Your task to perform on an android device: check android version Image 0: 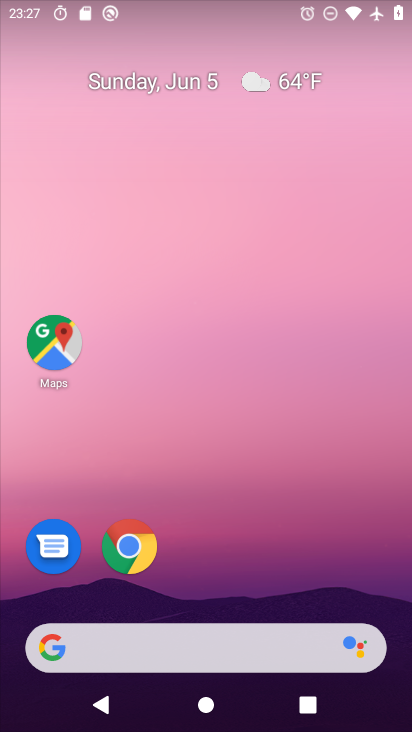
Step 0: drag from (191, 509) to (208, 134)
Your task to perform on an android device: check android version Image 1: 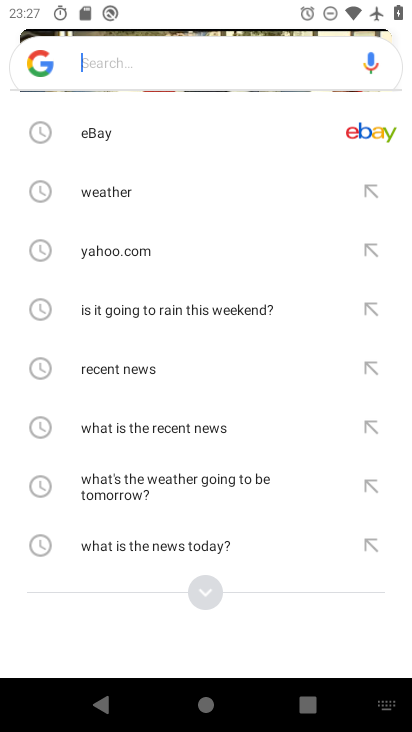
Step 1: press home button
Your task to perform on an android device: check android version Image 2: 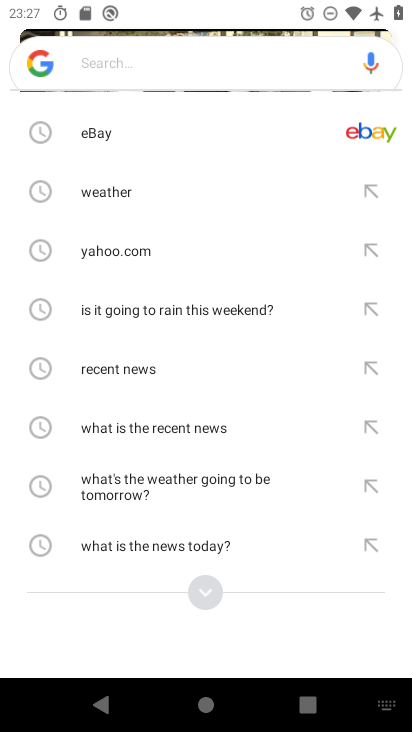
Step 2: press home button
Your task to perform on an android device: check android version Image 3: 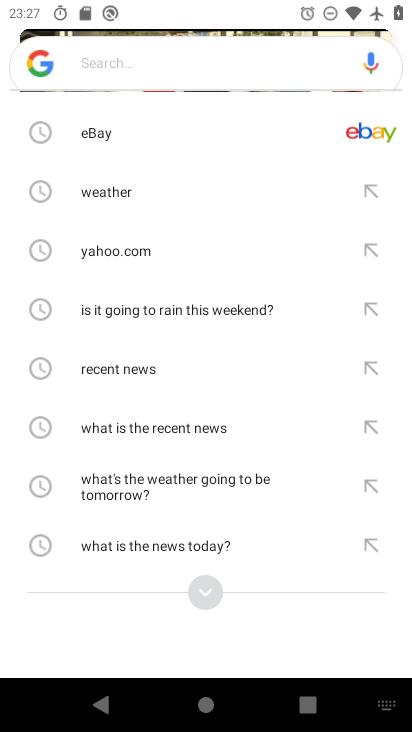
Step 3: click (252, 21)
Your task to perform on an android device: check android version Image 4: 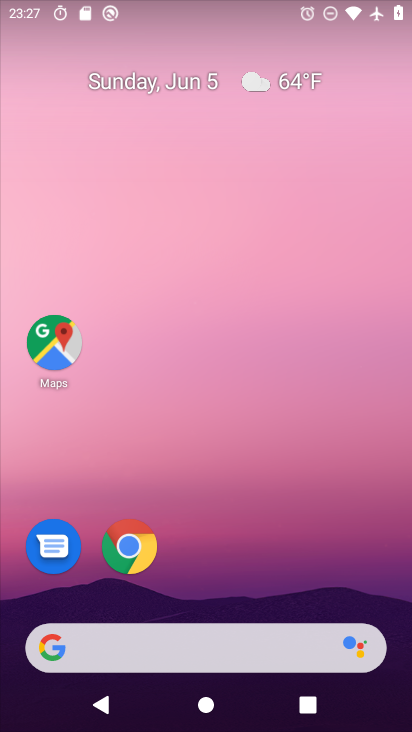
Step 4: drag from (210, 482) to (235, 26)
Your task to perform on an android device: check android version Image 5: 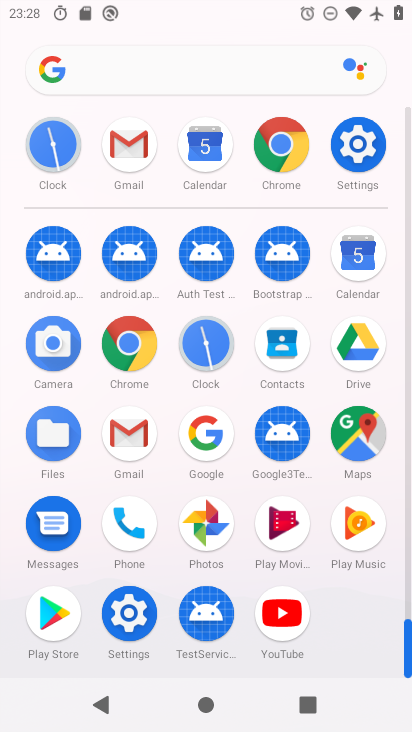
Step 5: drag from (243, 545) to (301, 169)
Your task to perform on an android device: check android version Image 6: 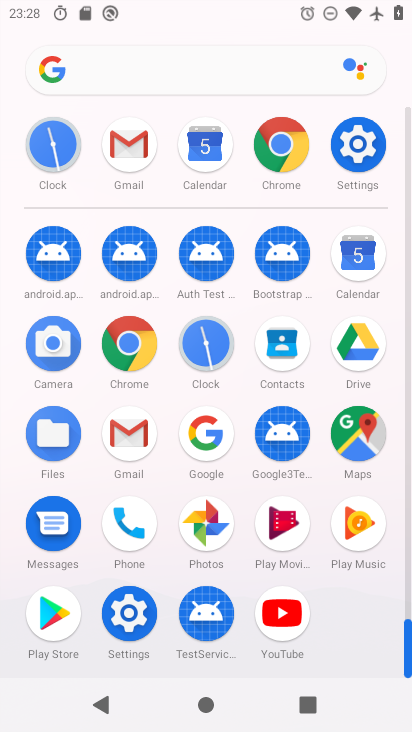
Step 6: click (112, 613)
Your task to perform on an android device: check android version Image 7: 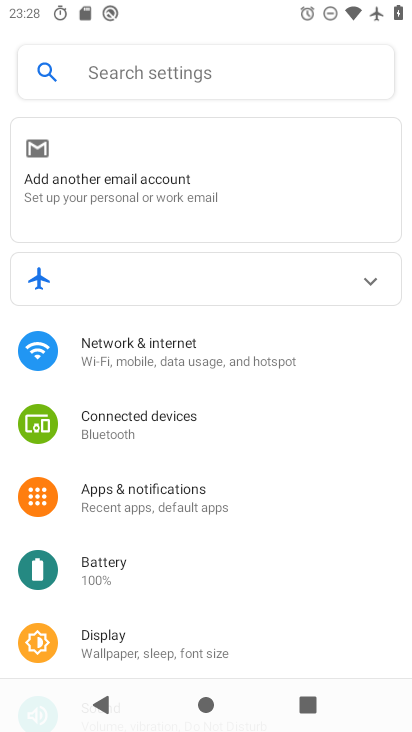
Step 7: drag from (222, 604) to (291, 13)
Your task to perform on an android device: check android version Image 8: 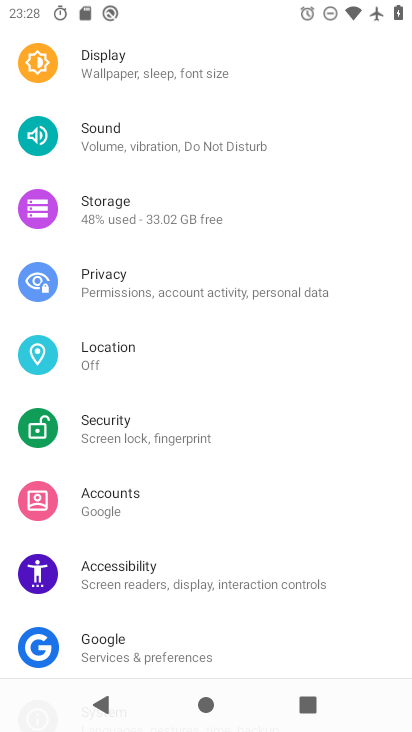
Step 8: drag from (145, 603) to (233, 151)
Your task to perform on an android device: check android version Image 9: 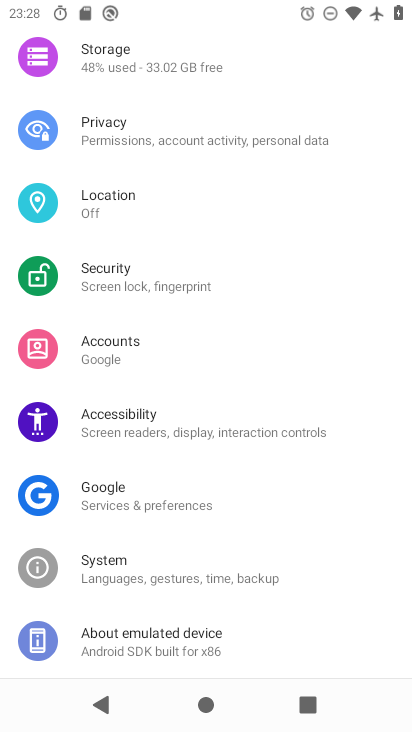
Step 9: click (158, 625)
Your task to perform on an android device: check android version Image 10: 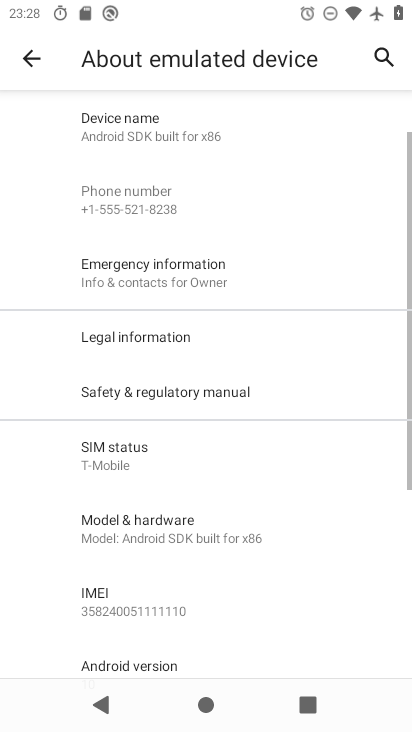
Step 10: drag from (160, 625) to (255, 1)
Your task to perform on an android device: check android version Image 11: 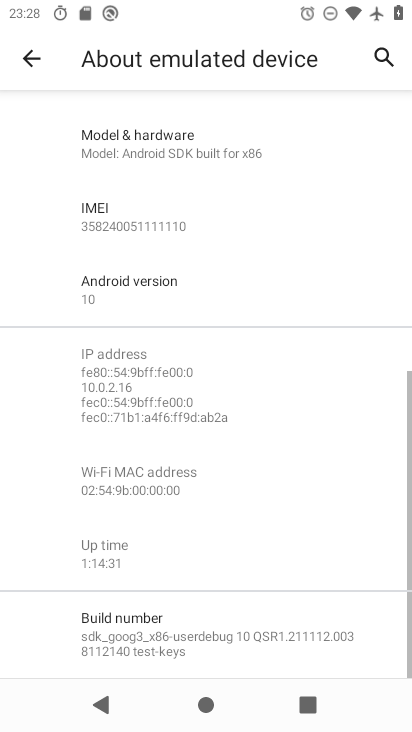
Step 11: click (169, 285)
Your task to perform on an android device: check android version Image 12: 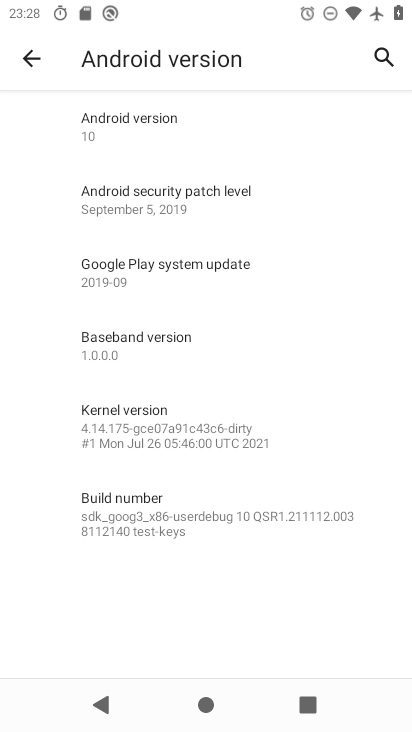
Step 12: drag from (186, 465) to (261, 96)
Your task to perform on an android device: check android version Image 13: 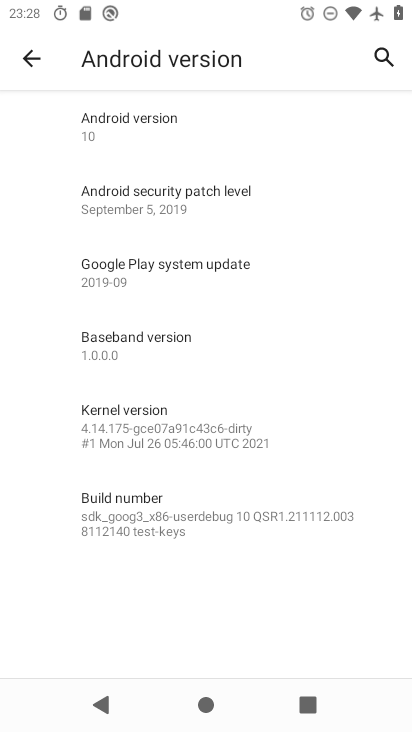
Step 13: click (129, 134)
Your task to perform on an android device: check android version Image 14: 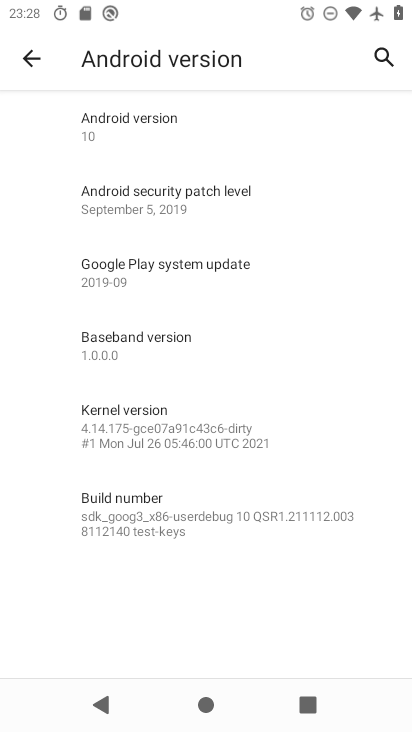
Step 14: task complete